Your task to perform on an android device: Open the map Image 0: 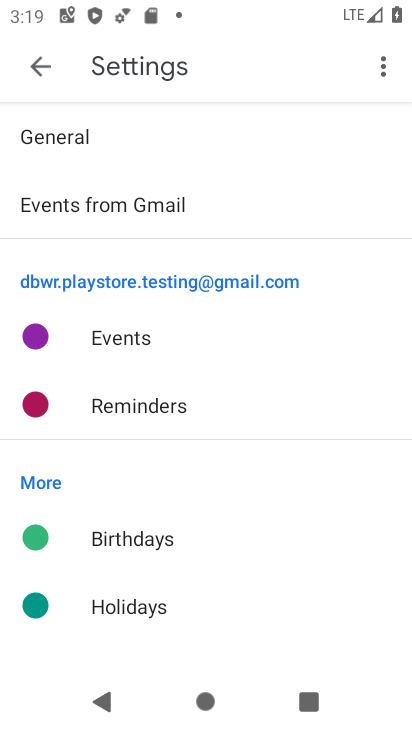
Step 0: press home button
Your task to perform on an android device: Open the map Image 1: 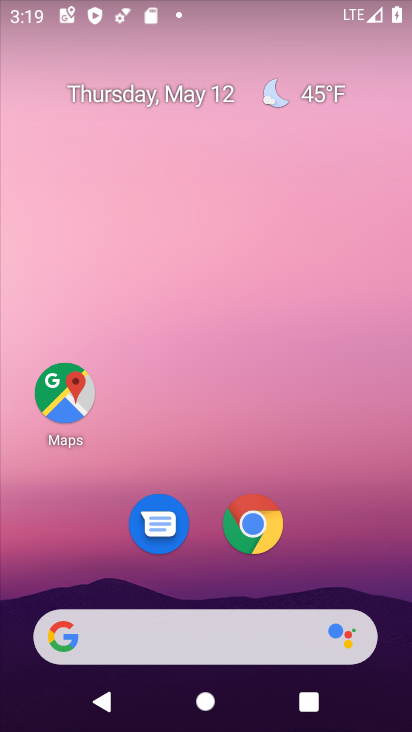
Step 1: click (72, 382)
Your task to perform on an android device: Open the map Image 2: 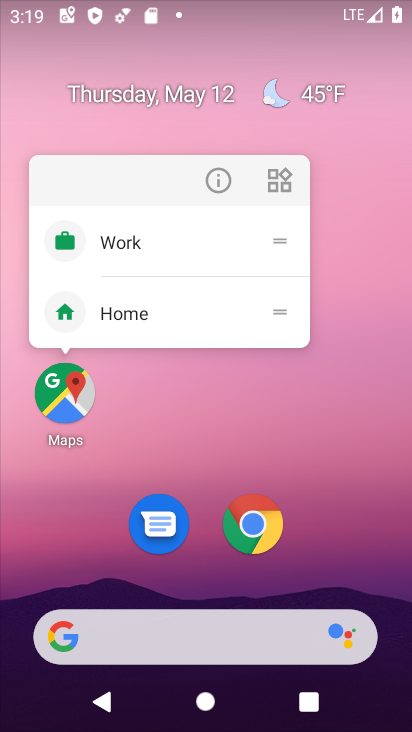
Step 2: click (72, 380)
Your task to perform on an android device: Open the map Image 3: 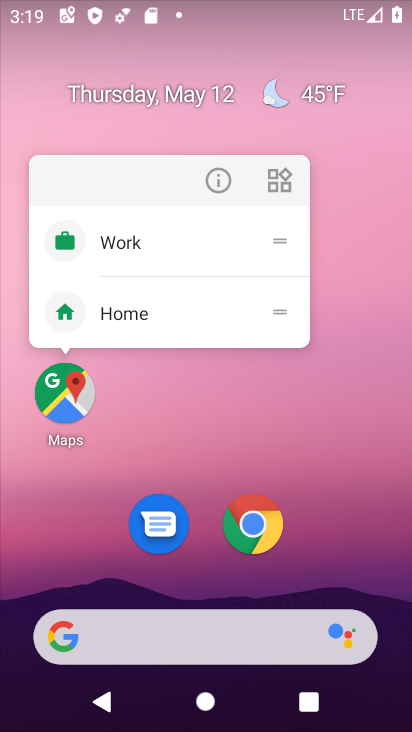
Step 3: click (64, 392)
Your task to perform on an android device: Open the map Image 4: 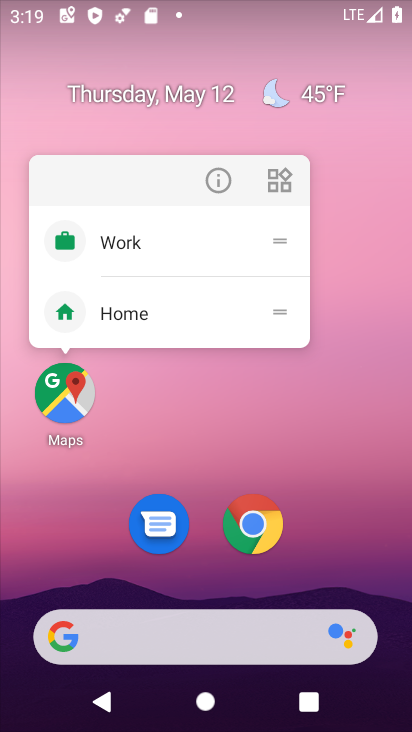
Step 4: click (68, 411)
Your task to perform on an android device: Open the map Image 5: 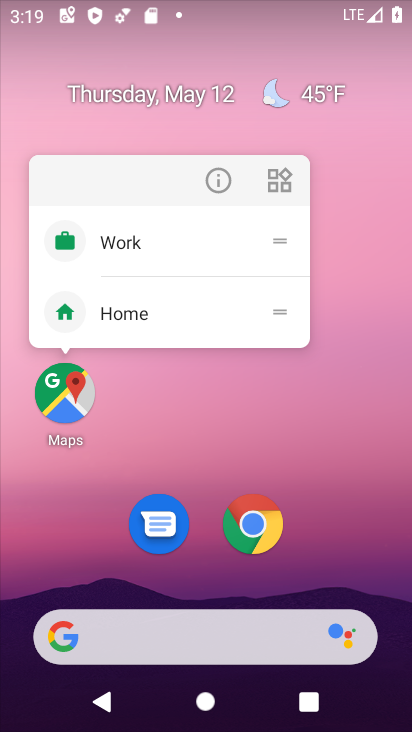
Step 5: click (68, 412)
Your task to perform on an android device: Open the map Image 6: 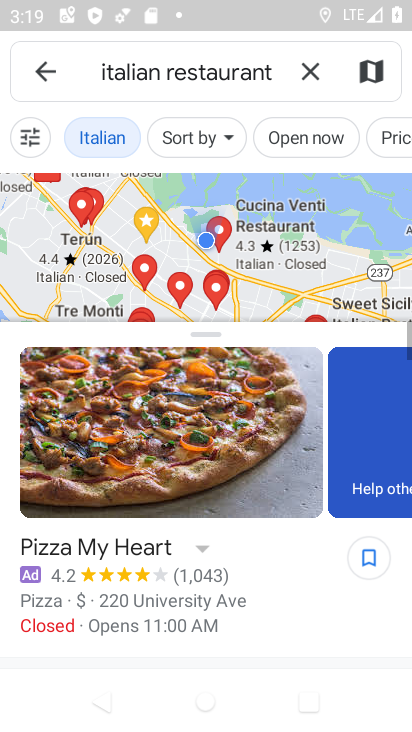
Step 6: click (312, 69)
Your task to perform on an android device: Open the map Image 7: 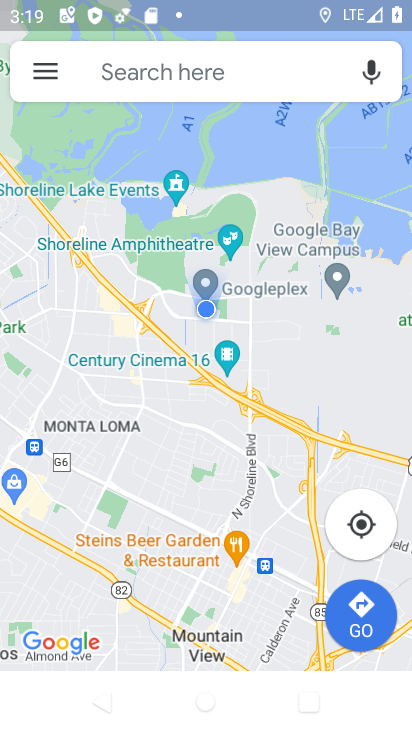
Step 7: task complete